Your task to perform on an android device: Open sound settings Image 0: 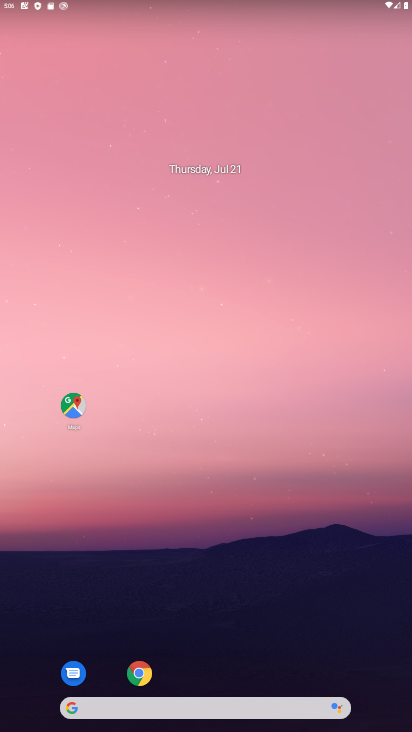
Step 0: drag from (244, 608) to (296, 303)
Your task to perform on an android device: Open sound settings Image 1: 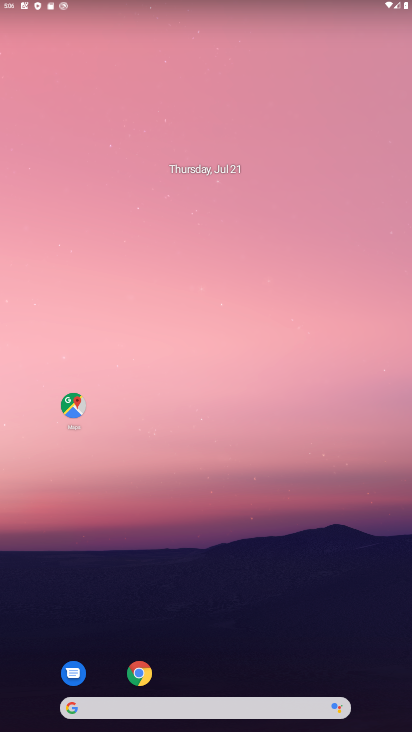
Step 1: drag from (239, 630) to (251, 244)
Your task to perform on an android device: Open sound settings Image 2: 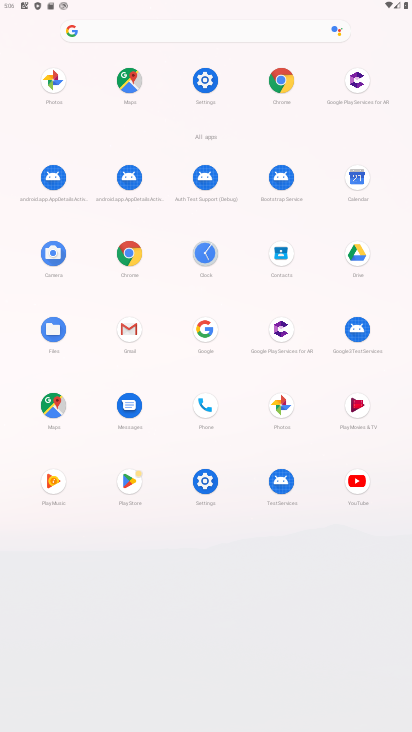
Step 2: click (203, 487)
Your task to perform on an android device: Open sound settings Image 3: 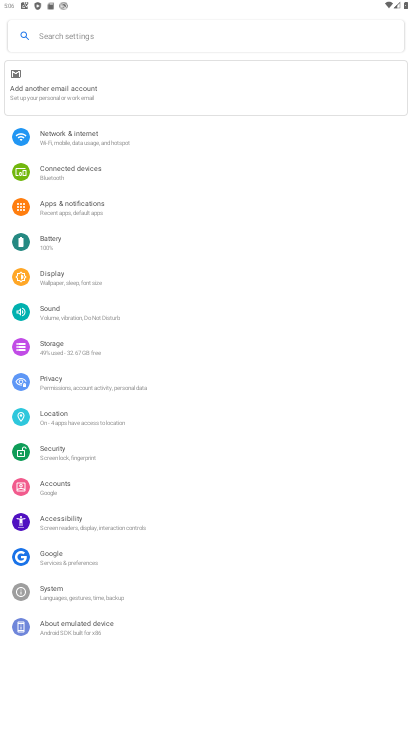
Step 3: click (37, 309)
Your task to perform on an android device: Open sound settings Image 4: 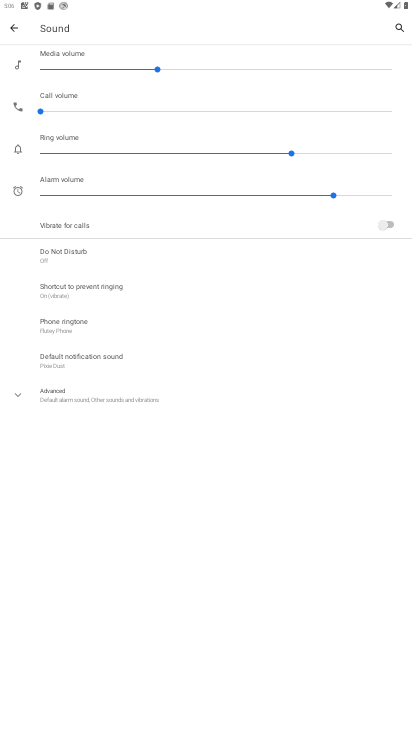
Step 4: click (13, 29)
Your task to perform on an android device: Open sound settings Image 5: 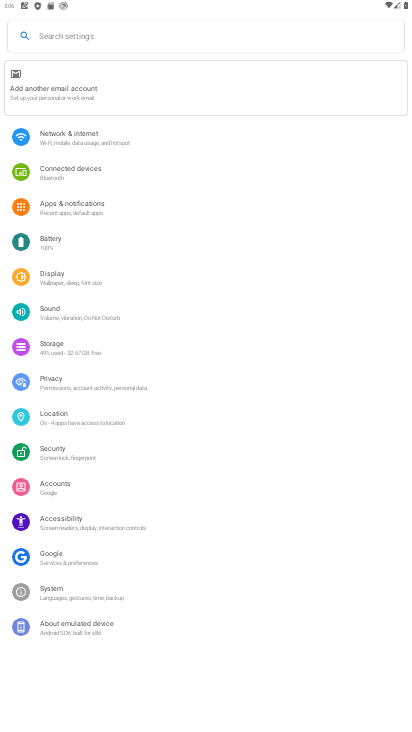
Step 5: click (74, 305)
Your task to perform on an android device: Open sound settings Image 6: 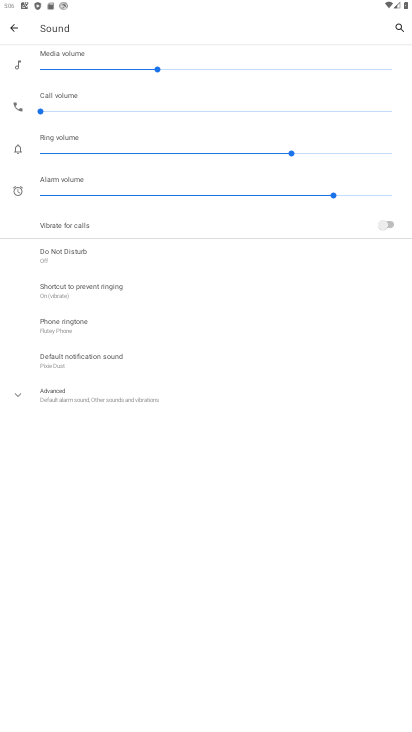
Step 6: task complete